Your task to perform on an android device: Open Yahoo.com Image 0: 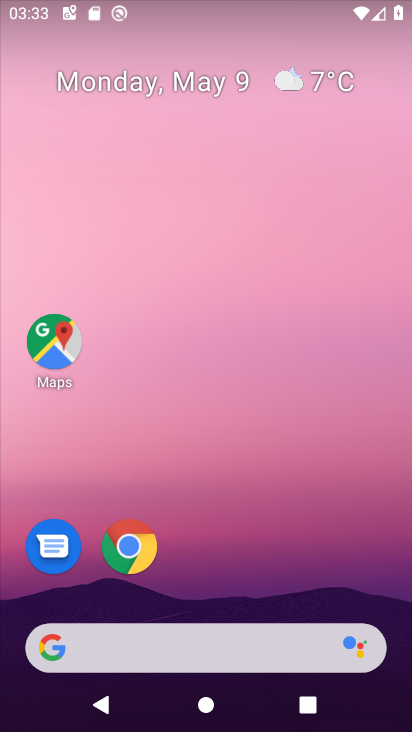
Step 0: click (230, 658)
Your task to perform on an android device: Open Yahoo.com Image 1: 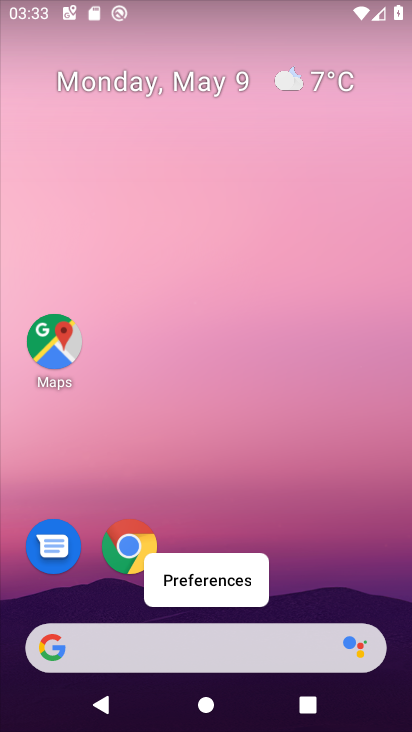
Step 1: click (212, 646)
Your task to perform on an android device: Open Yahoo.com Image 2: 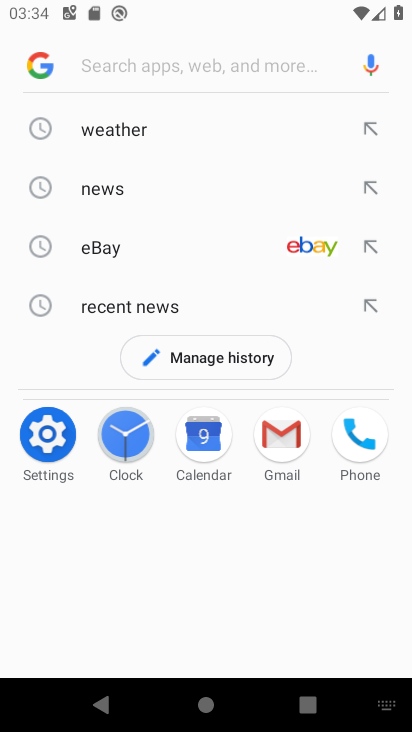
Step 2: type "yahoo.com"
Your task to perform on an android device: Open Yahoo.com Image 3: 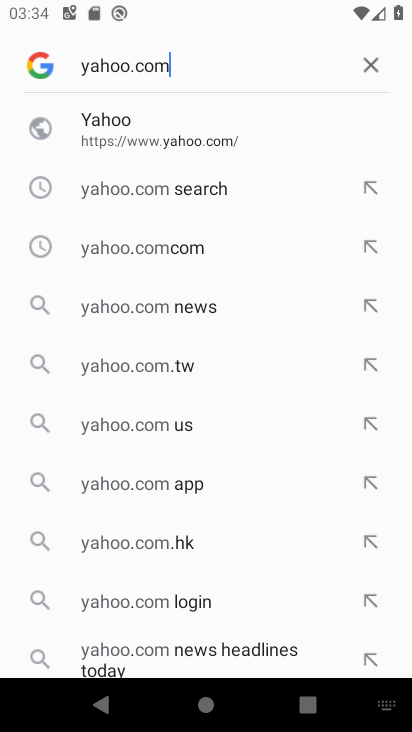
Step 3: click (108, 115)
Your task to perform on an android device: Open Yahoo.com Image 4: 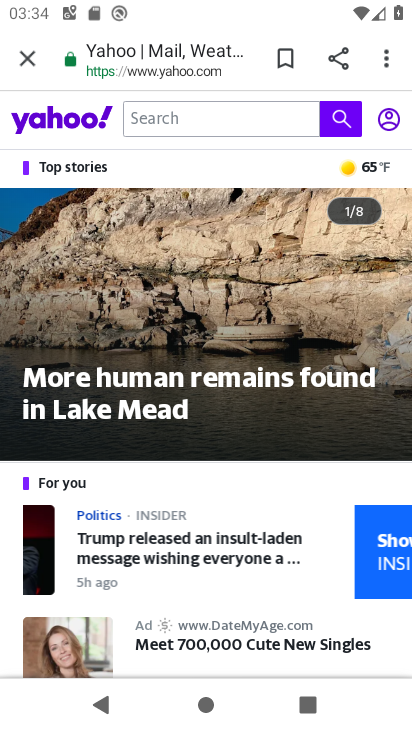
Step 4: task complete